Your task to perform on an android device: turn off improve location accuracy Image 0: 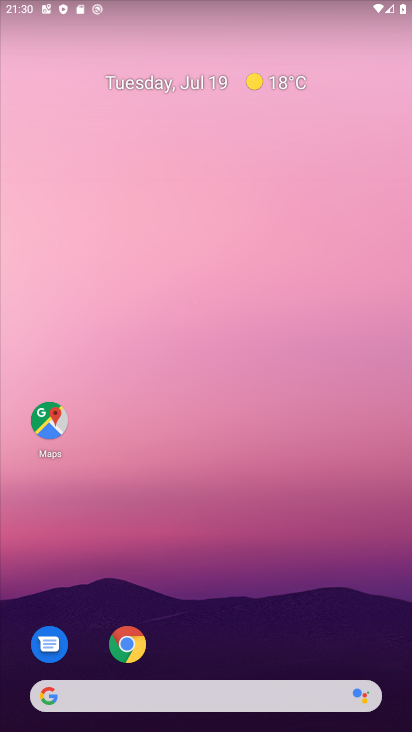
Step 0: drag from (224, 729) to (282, 136)
Your task to perform on an android device: turn off improve location accuracy Image 1: 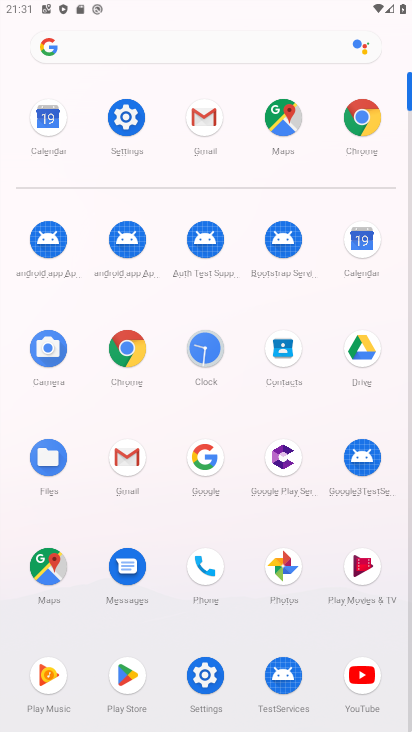
Step 1: click (122, 114)
Your task to perform on an android device: turn off improve location accuracy Image 2: 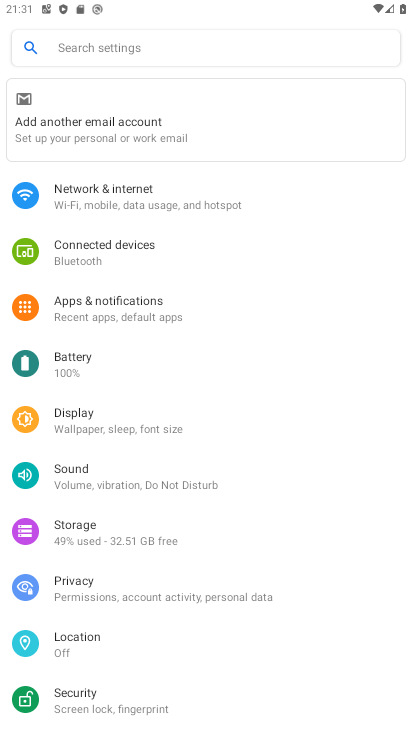
Step 2: click (69, 641)
Your task to perform on an android device: turn off improve location accuracy Image 3: 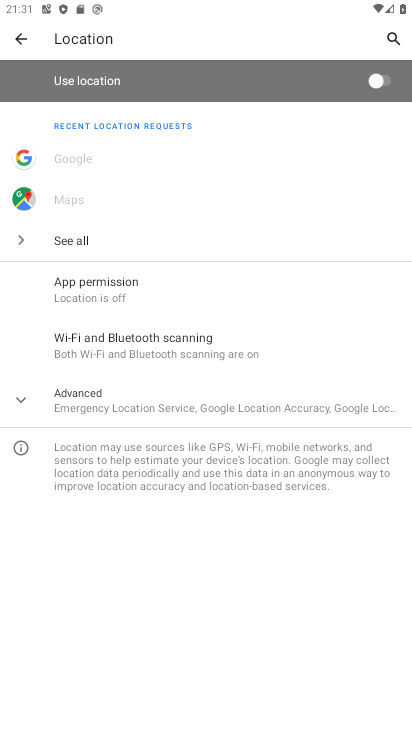
Step 3: click (74, 400)
Your task to perform on an android device: turn off improve location accuracy Image 4: 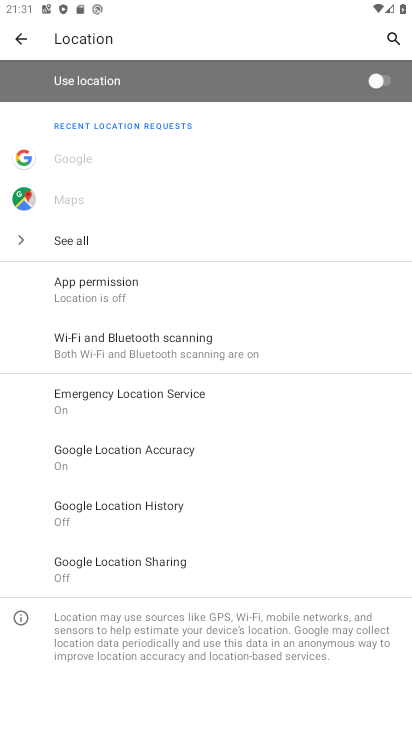
Step 4: click (86, 447)
Your task to perform on an android device: turn off improve location accuracy Image 5: 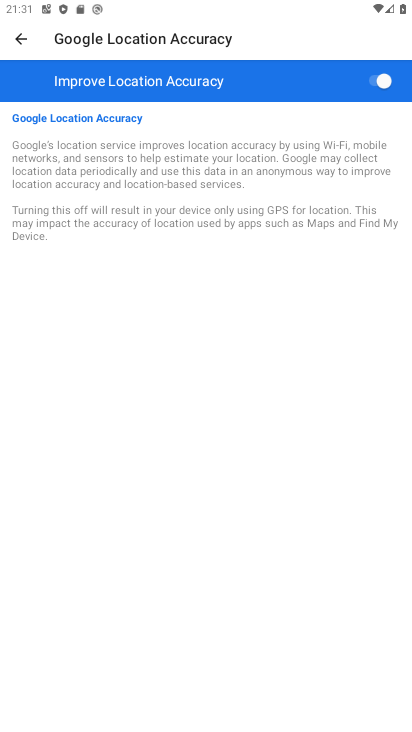
Step 5: click (371, 78)
Your task to perform on an android device: turn off improve location accuracy Image 6: 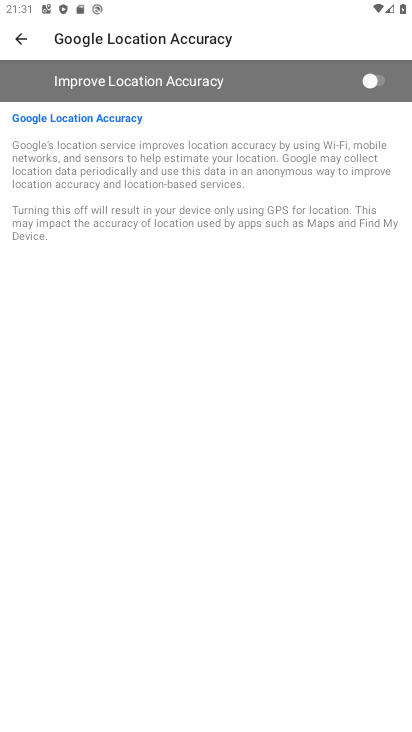
Step 6: task complete